Your task to perform on an android device: Play the new Bruno Mars video on YouTube Image 0: 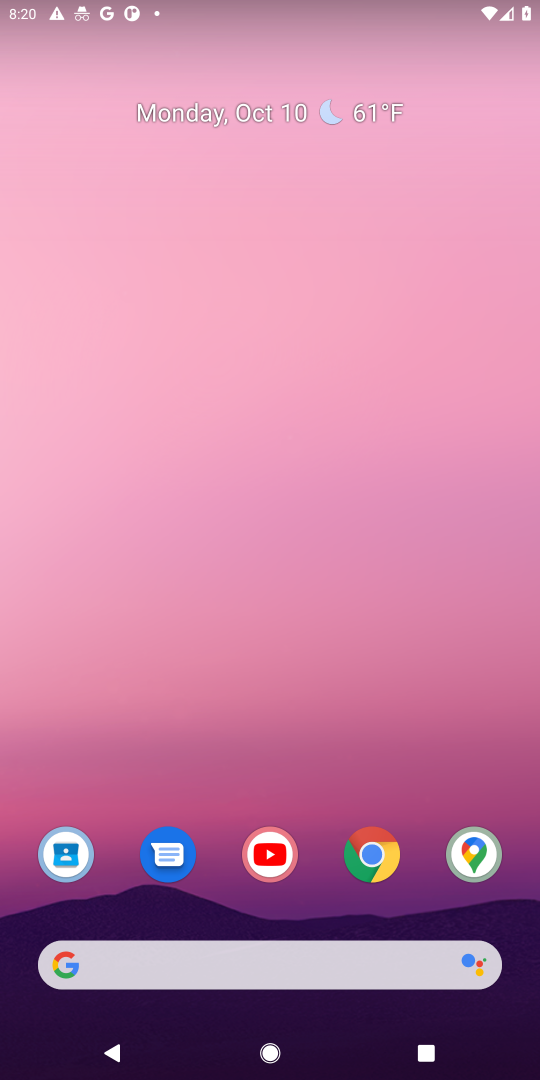
Step 0: click (366, 860)
Your task to perform on an android device: Play the new Bruno Mars video on YouTube Image 1: 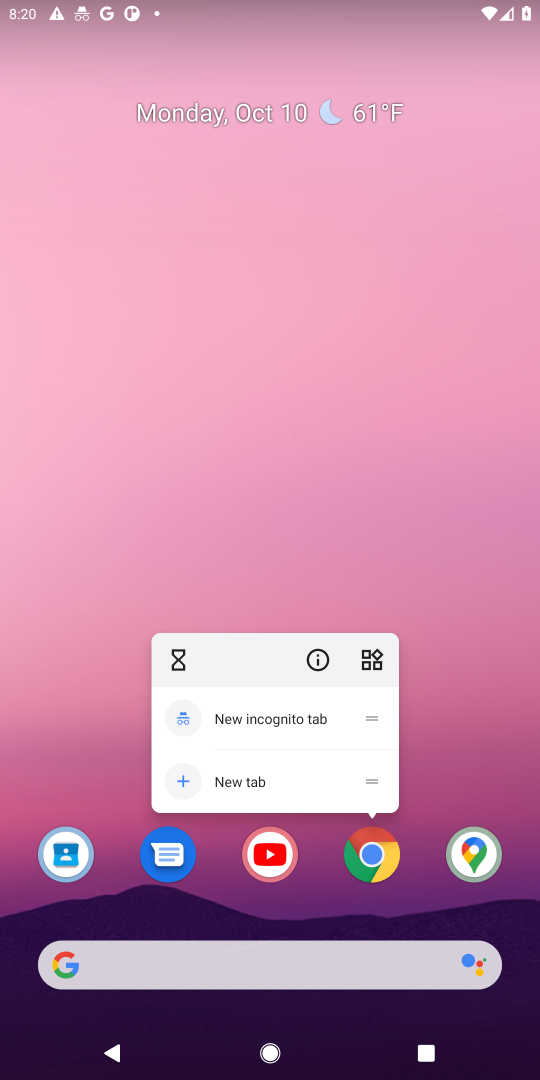
Step 1: click (366, 860)
Your task to perform on an android device: Play the new Bruno Mars video on YouTube Image 2: 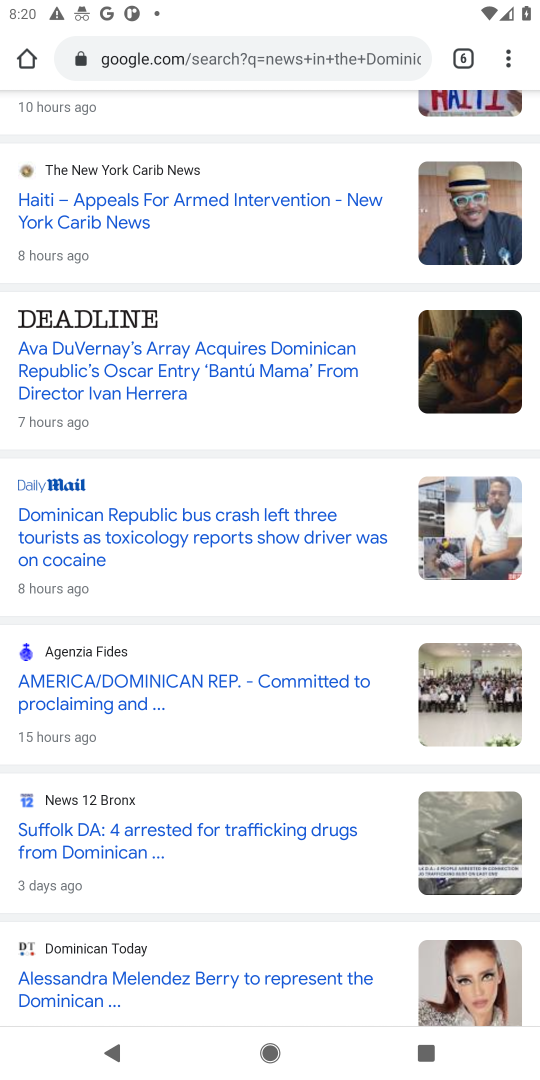
Step 2: click (300, 55)
Your task to perform on an android device: Play the new Bruno Mars video on YouTube Image 3: 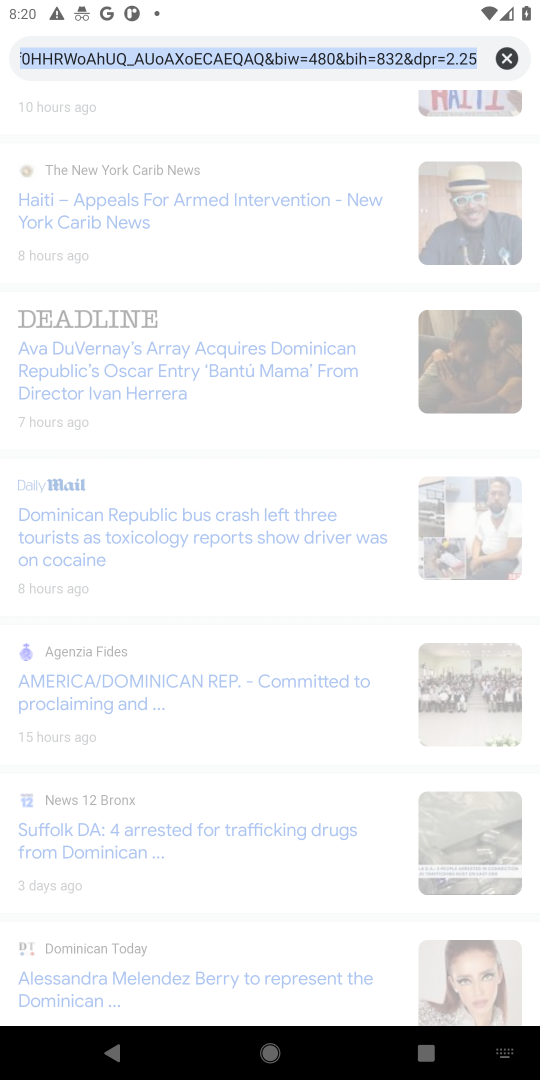
Step 3: click (502, 59)
Your task to perform on an android device: Play the new Bruno Mars video on YouTube Image 4: 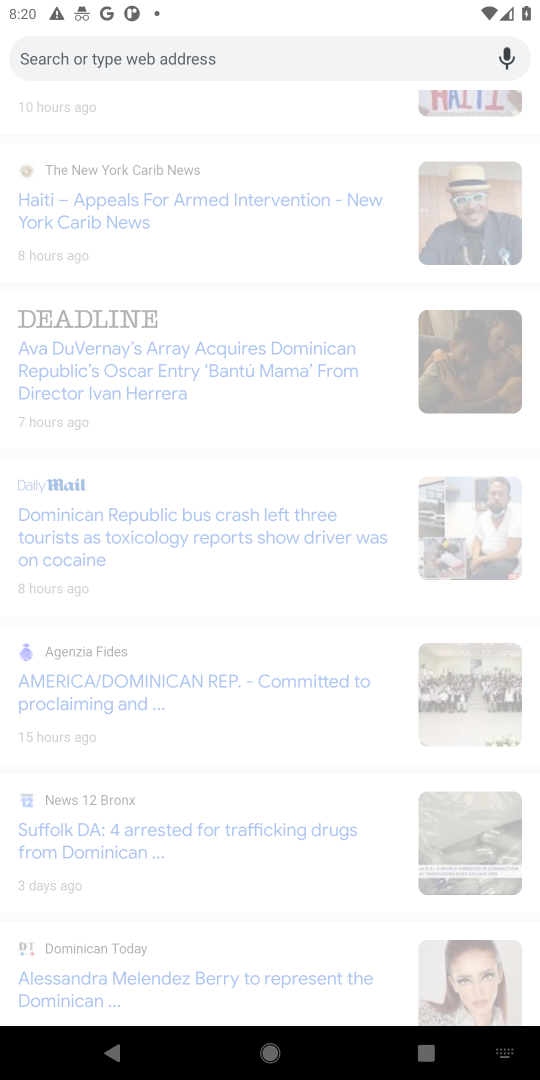
Step 4: type "new Bruno Mars video on YouTube"
Your task to perform on an android device: Play the new Bruno Mars video on YouTube Image 5: 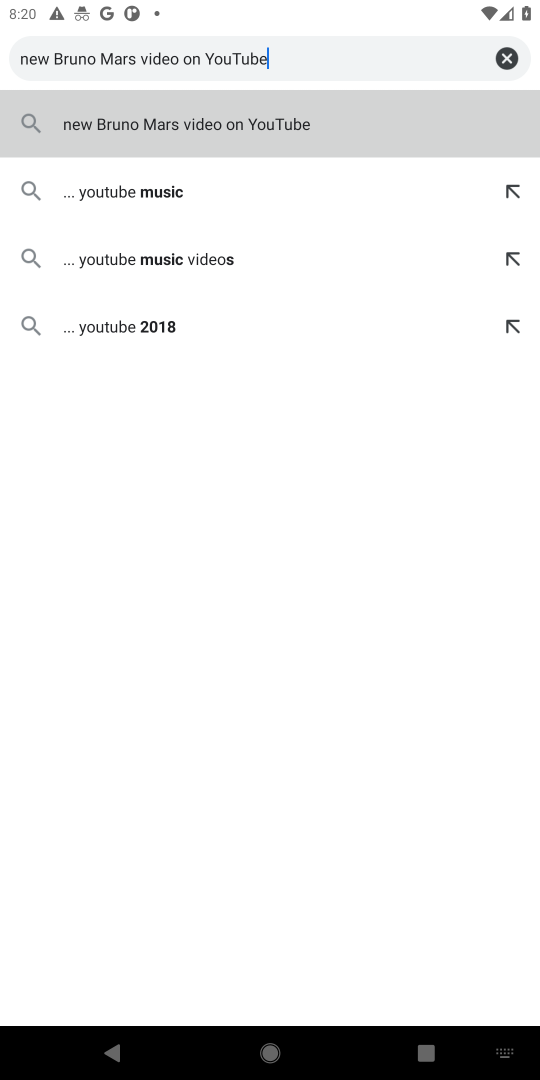
Step 5: click (198, 123)
Your task to perform on an android device: Play the new Bruno Mars video on YouTube Image 6: 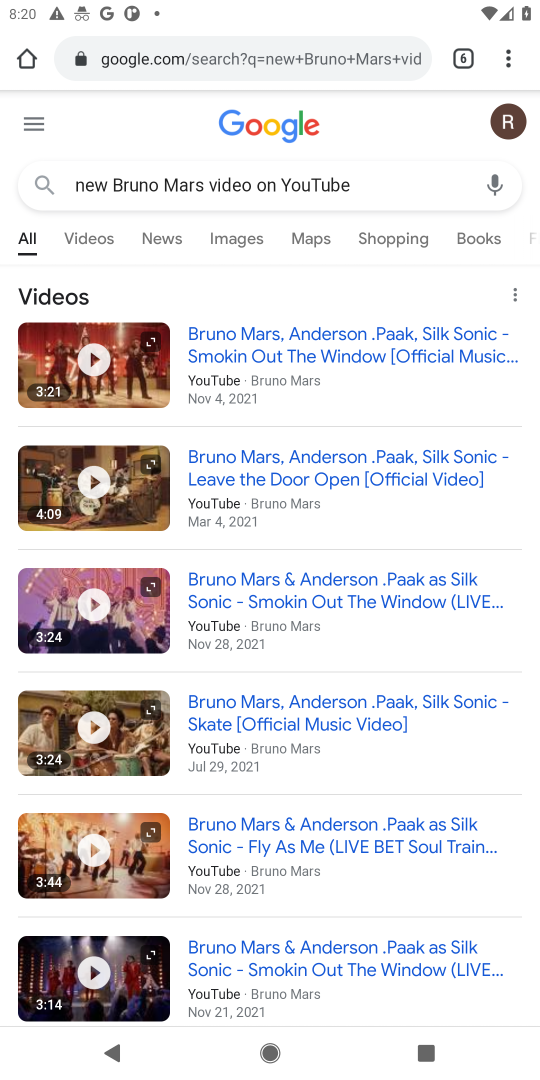
Step 6: click (112, 358)
Your task to perform on an android device: Play the new Bruno Mars video on YouTube Image 7: 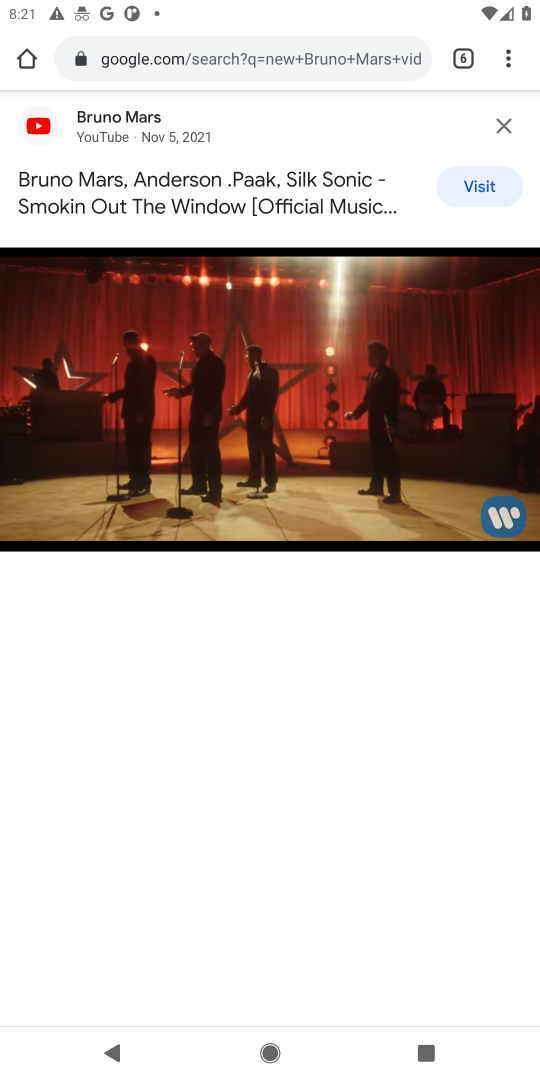
Step 7: click (283, 378)
Your task to perform on an android device: Play the new Bruno Mars video on YouTube Image 8: 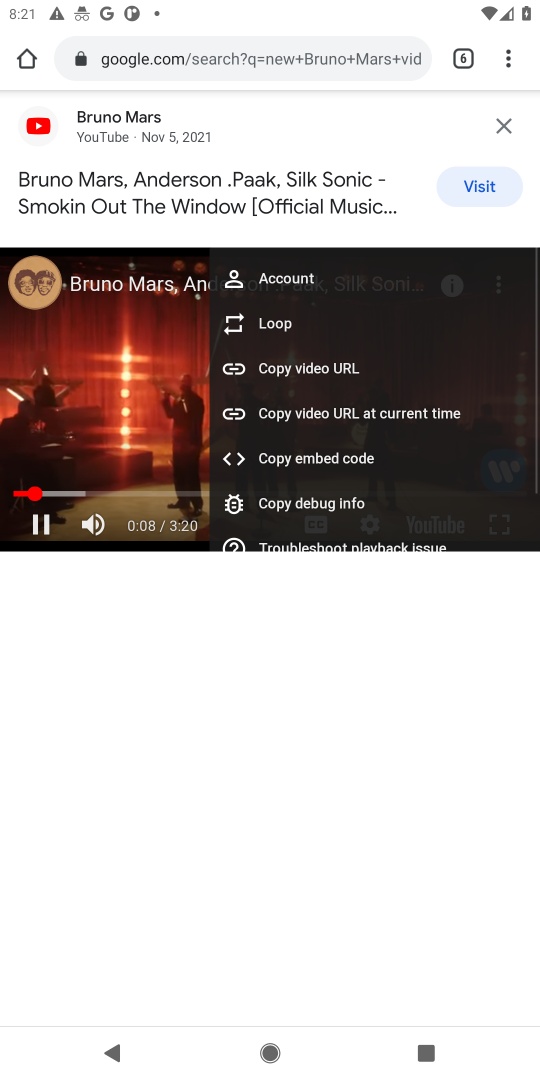
Step 8: click (86, 389)
Your task to perform on an android device: Play the new Bruno Mars video on YouTube Image 9: 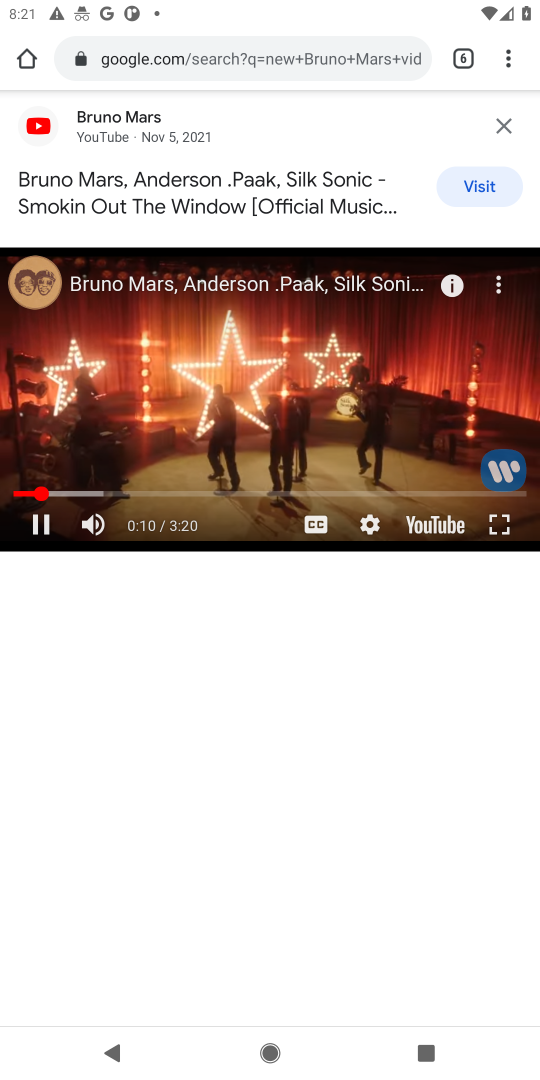
Step 9: click (267, 385)
Your task to perform on an android device: Play the new Bruno Mars video on YouTube Image 10: 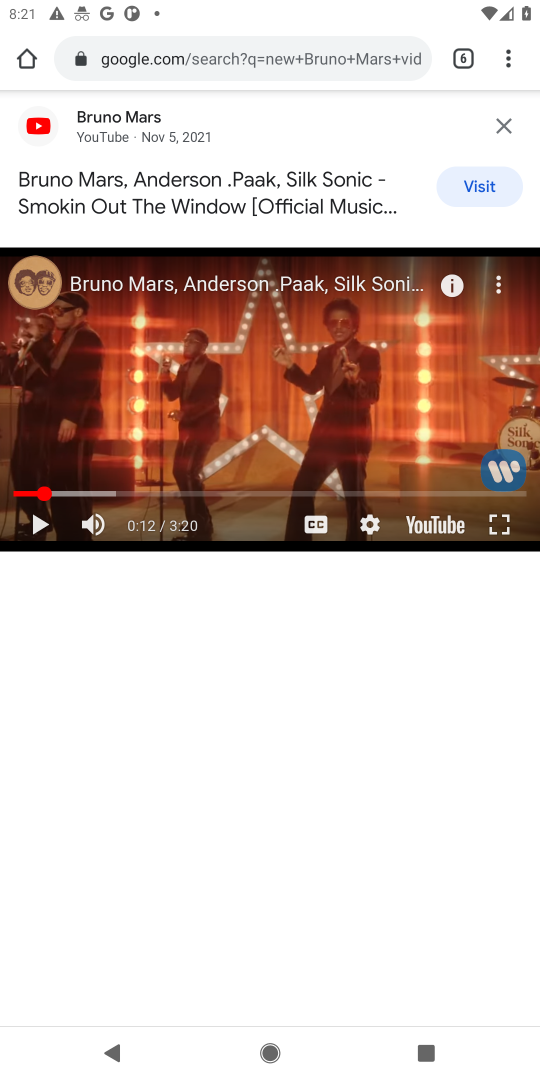
Step 10: task complete